Your task to perform on an android device: Open calendar and show me the first week of next month Image 0: 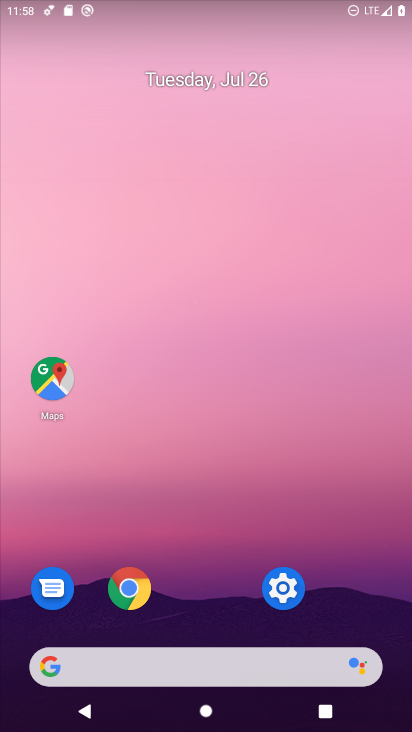
Step 0: drag from (232, 642) to (302, 102)
Your task to perform on an android device: Open calendar and show me the first week of next month Image 1: 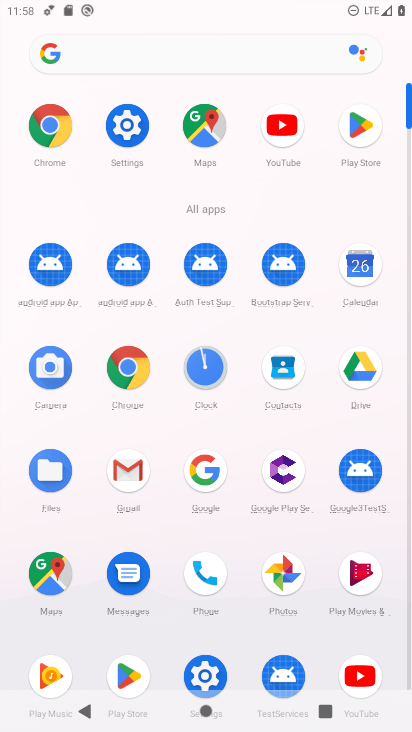
Step 1: click (343, 258)
Your task to perform on an android device: Open calendar and show me the first week of next month Image 2: 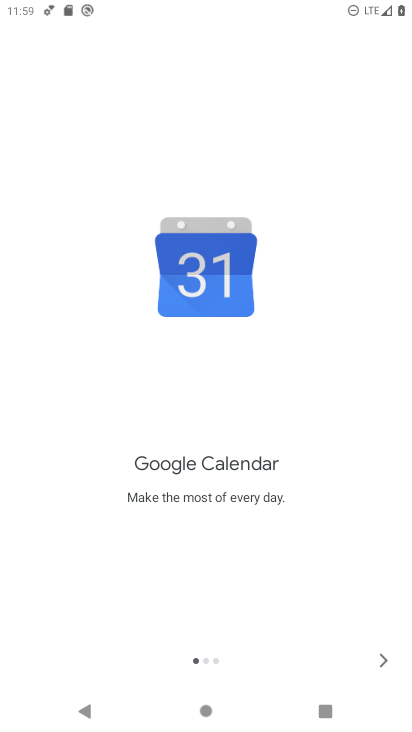
Step 2: click (382, 657)
Your task to perform on an android device: Open calendar and show me the first week of next month Image 3: 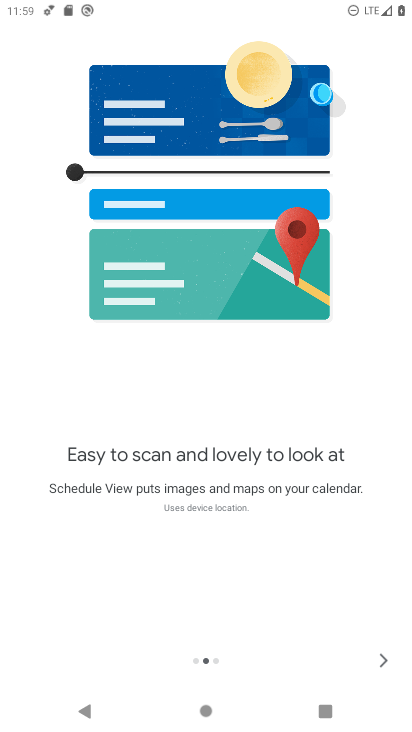
Step 3: click (397, 643)
Your task to perform on an android device: Open calendar and show me the first week of next month Image 4: 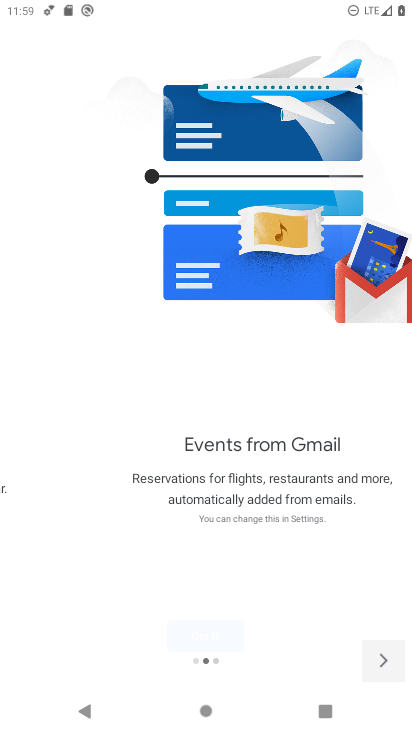
Step 4: click (387, 659)
Your task to perform on an android device: Open calendar and show me the first week of next month Image 5: 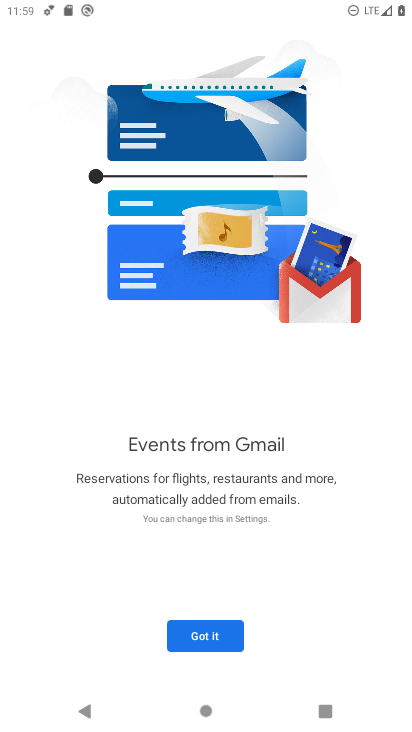
Step 5: click (214, 637)
Your task to perform on an android device: Open calendar and show me the first week of next month Image 6: 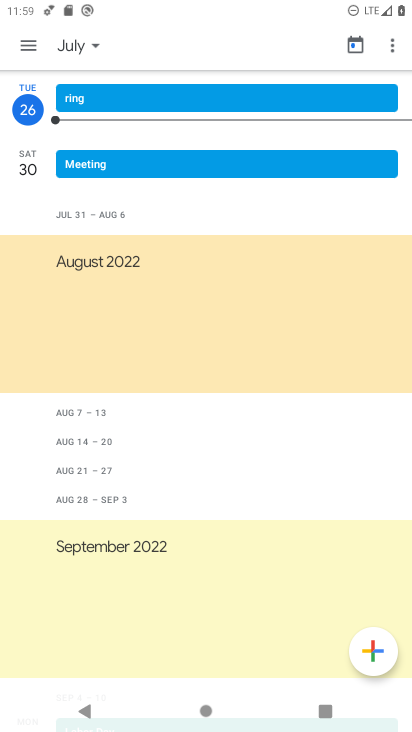
Step 6: click (31, 47)
Your task to perform on an android device: Open calendar and show me the first week of next month Image 7: 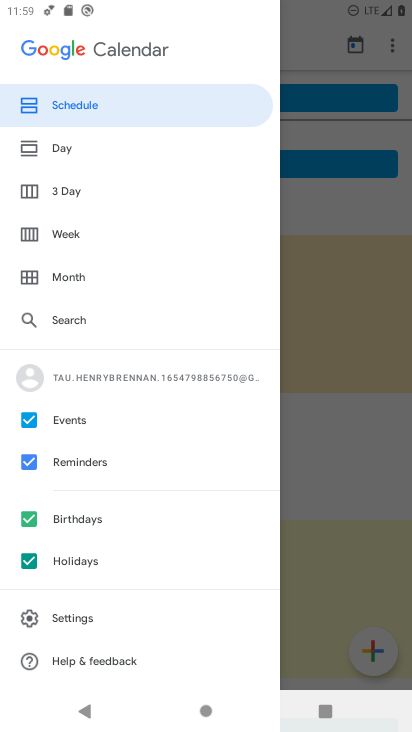
Step 7: click (74, 275)
Your task to perform on an android device: Open calendar and show me the first week of next month Image 8: 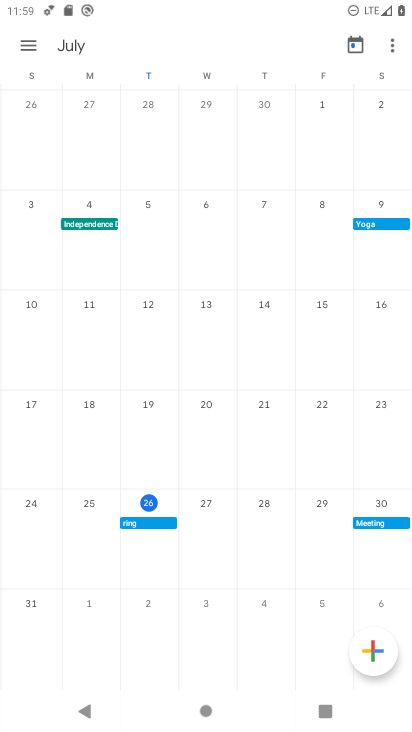
Step 8: drag from (389, 385) to (0, 526)
Your task to perform on an android device: Open calendar and show me the first week of next month Image 9: 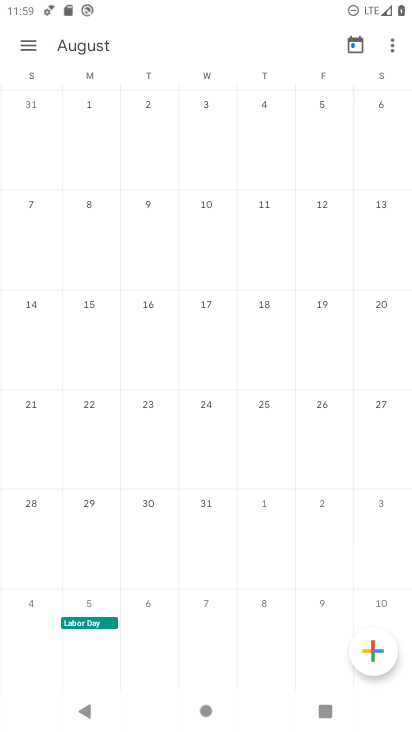
Step 9: click (90, 143)
Your task to perform on an android device: Open calendar and show me the first week of next month Image 10: 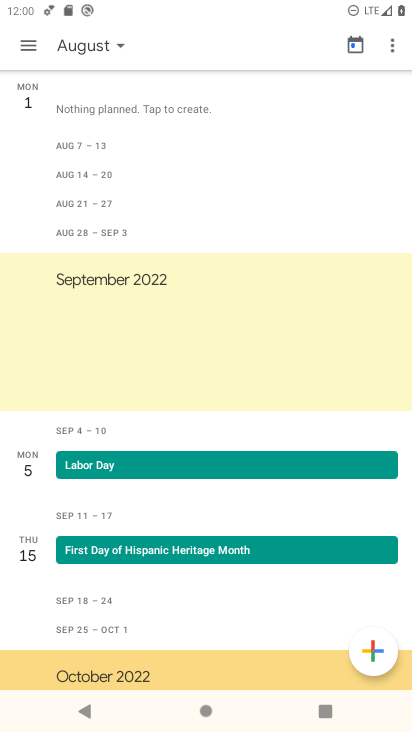
Step 10: task complete